Your task to perform on an android device: View the shopping cart on costco. Add "rayovac triple a" to the cart on costco Image 0: 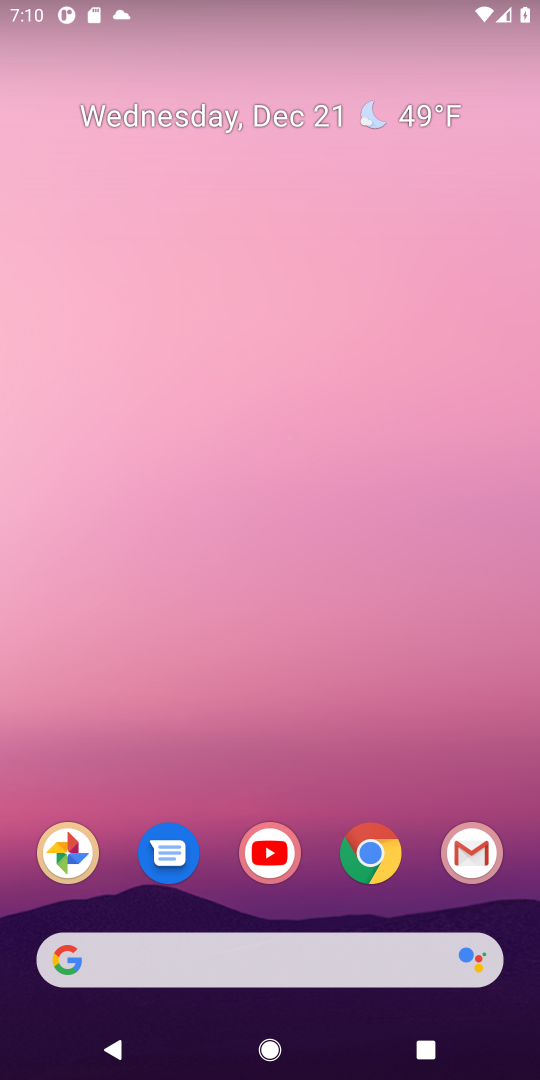
Step 0: click (369, 864)
Your task to perform on an android device: View the shopping cart on costco. Add "rayovac triple a" to the cart on costco Image 1: 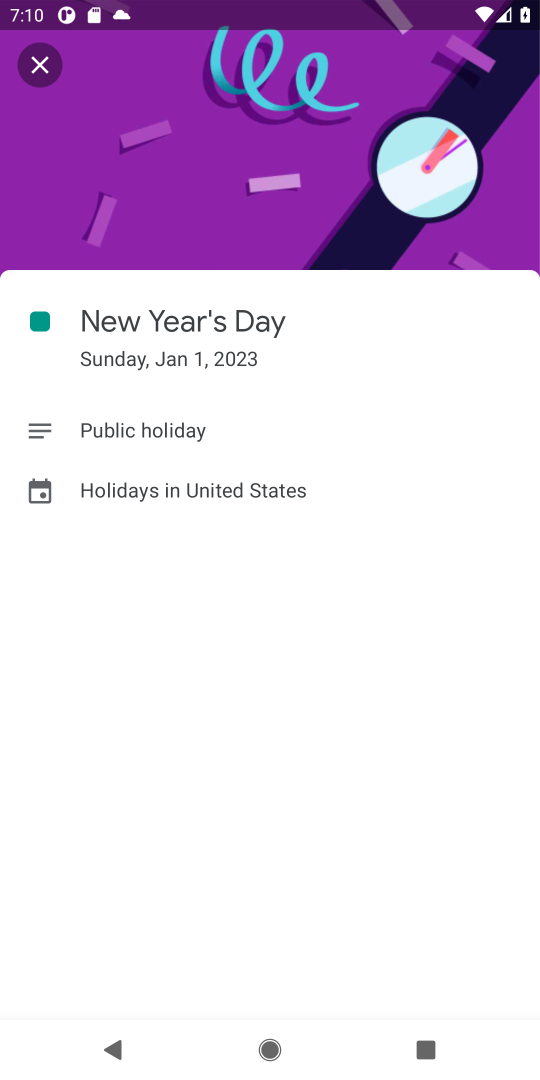
Step 1: press home button
Your task to perform on an android device: View the shopping cart on costco. Add "rayovac triple a" to the cart on costco Image 2: 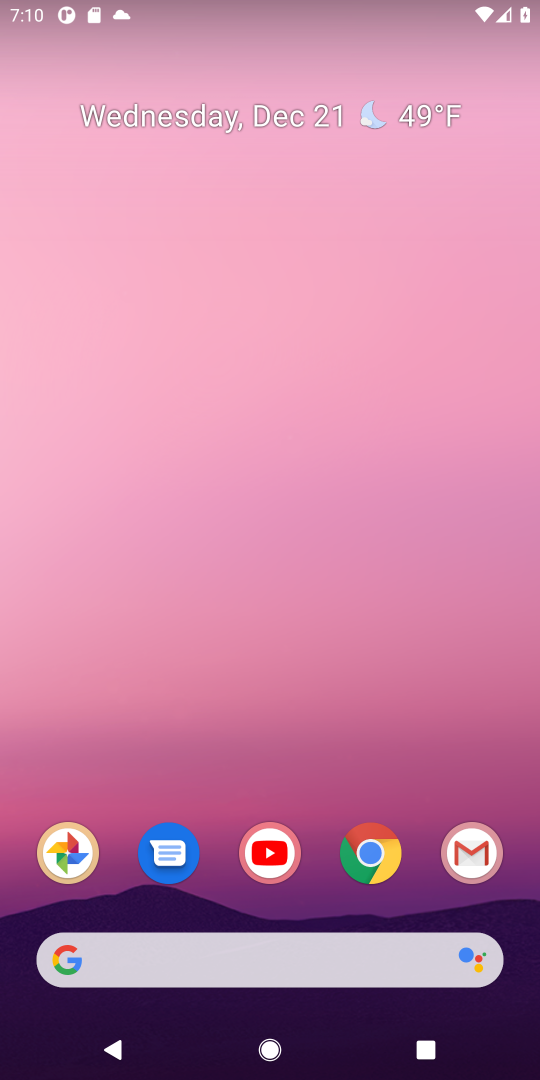
Step 2: click (378, 837)
Your task to perform on an android device: View the shopping cart on costco. Add "rayovac triple a" to the cart on costco Image 3: 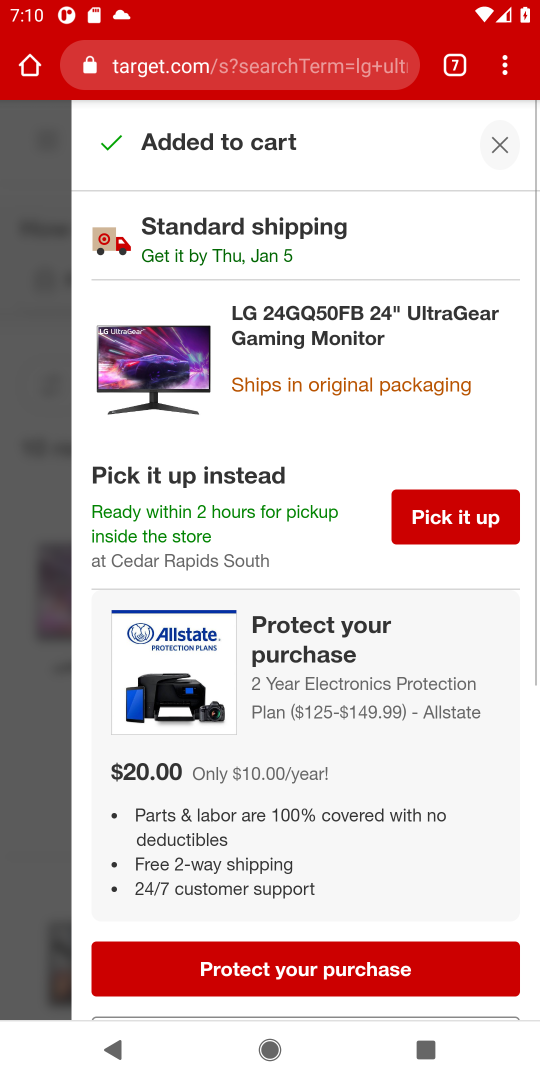
Step 3: click (460, 65)
Your task to perform on an android device: View the shopping cart on costco. Add "rayovac triple a" to the cart on costco Image 4: 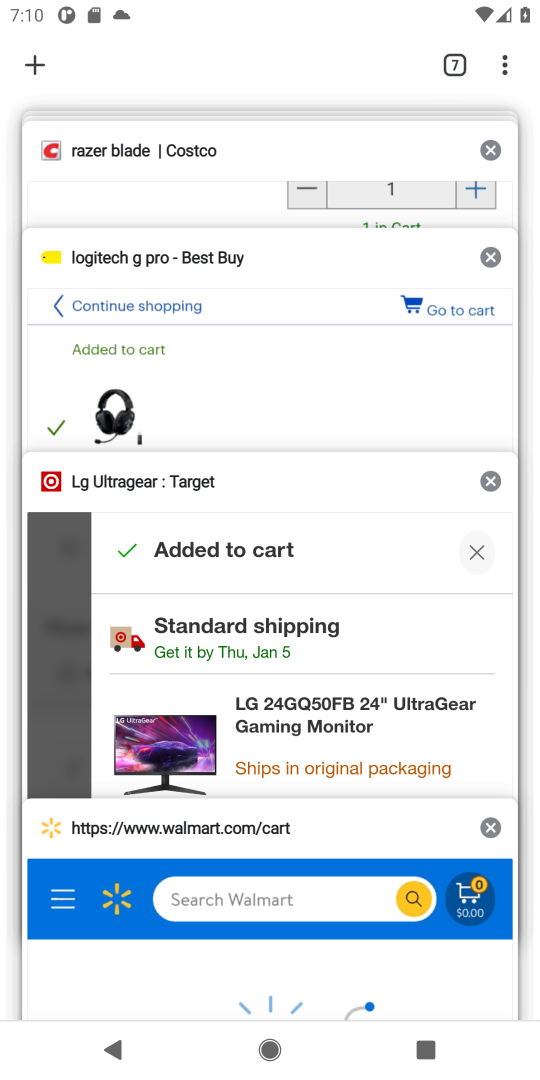
Step 4: click (253, 199)
Your task to perform on an android device: View the shopping cart on costco. Add "rayovac triple a" to the cart on costco Image 5: 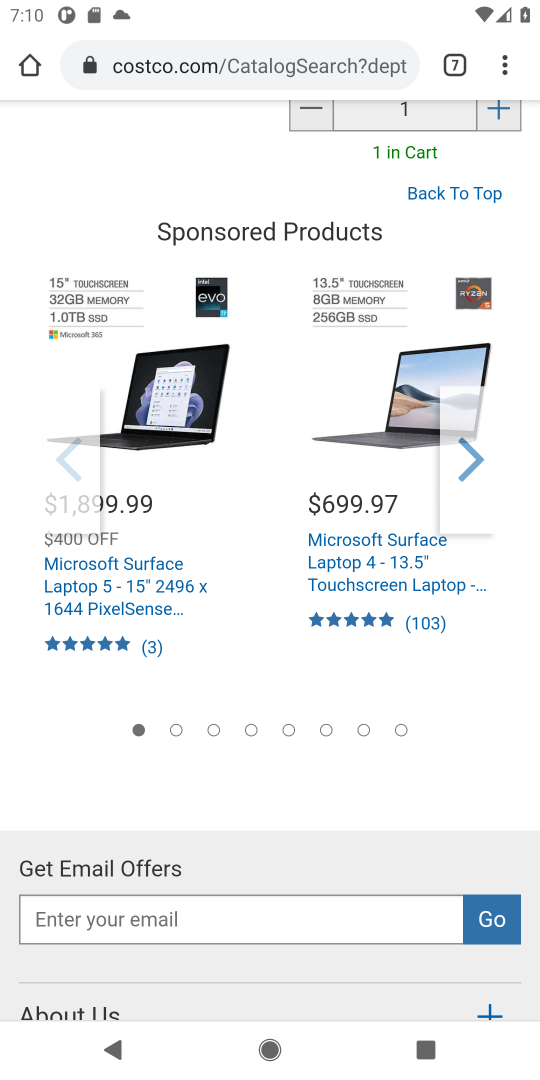
Step 5: drag from (216, 161) to (90, 574)
Your task to perform on an android device: View the shopping cart on costco. Add "rayovac triple a" to the cart on costco Image 6: 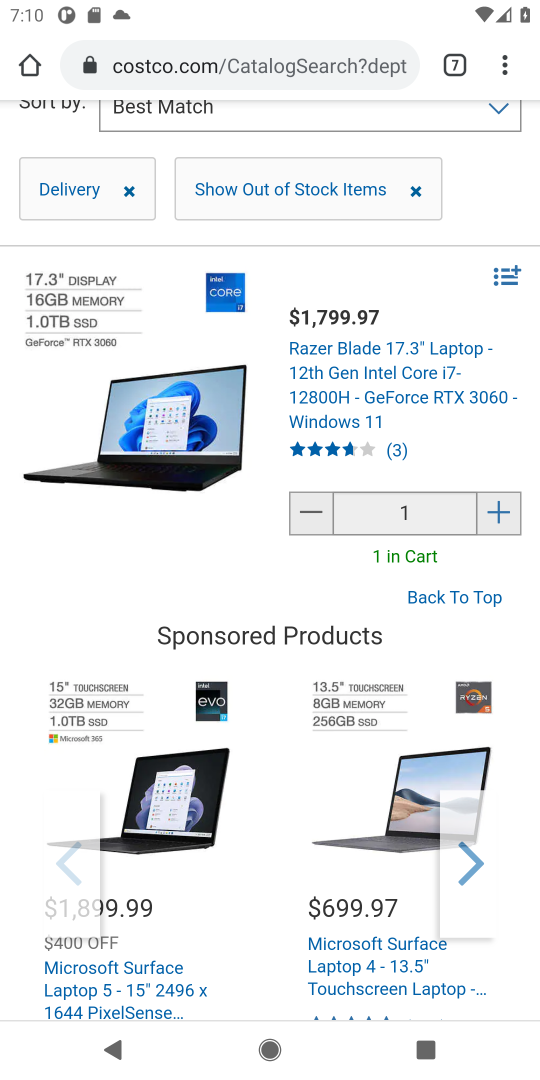
Step 6: drag from (162, 159) to (96, 770)
Your task to perform on an android device: View the shopping cart on costco. Add "rayovac triple a" to the cart on costco Image 7: 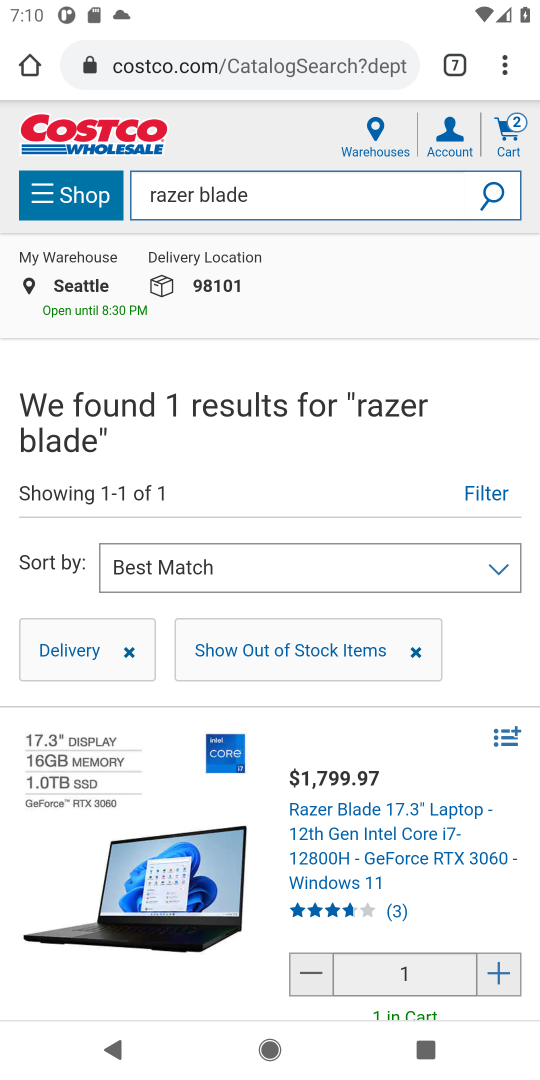
Step 7: click (341, 201)
Your task to perform on an android device: View the shopping cart on costco. Add "rayovac triple a" to the cart on costco Image 8: 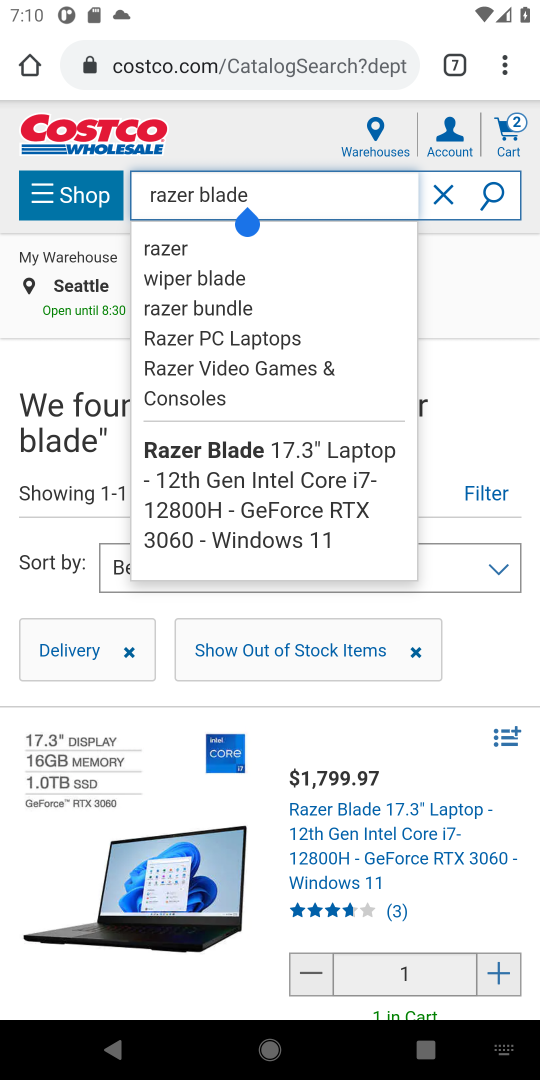
Step 8: click (440, 198)
Your task to perform on an android device: View the shopping cart on costco. Add "rayovac triple a" to the cart on costco Image 9: 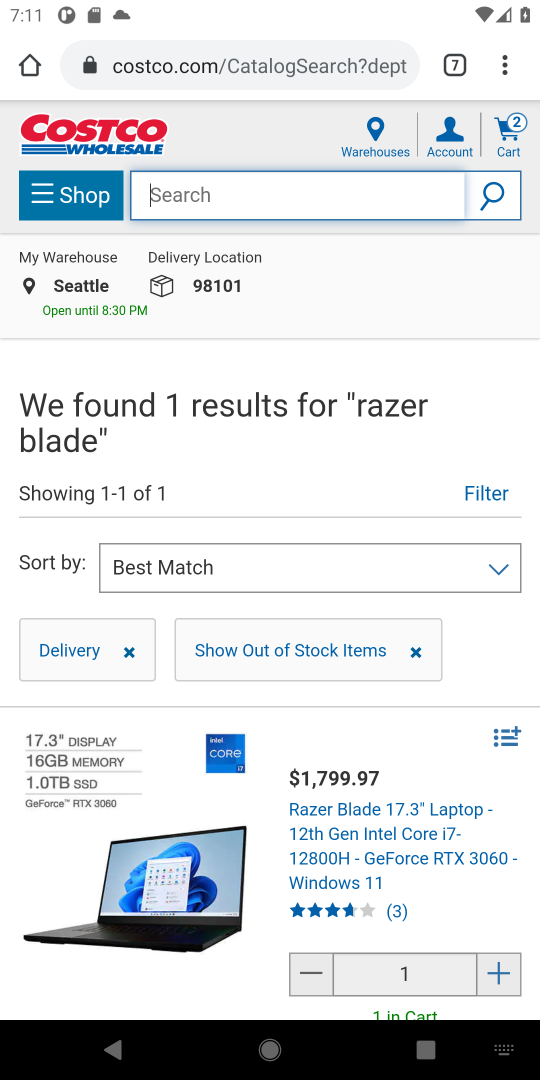
Step 9: click (520, 128)
Your task to perform on an android device: View the shopping cart on costco. Add "rayovac triple a" to the cart on costco Image 10: 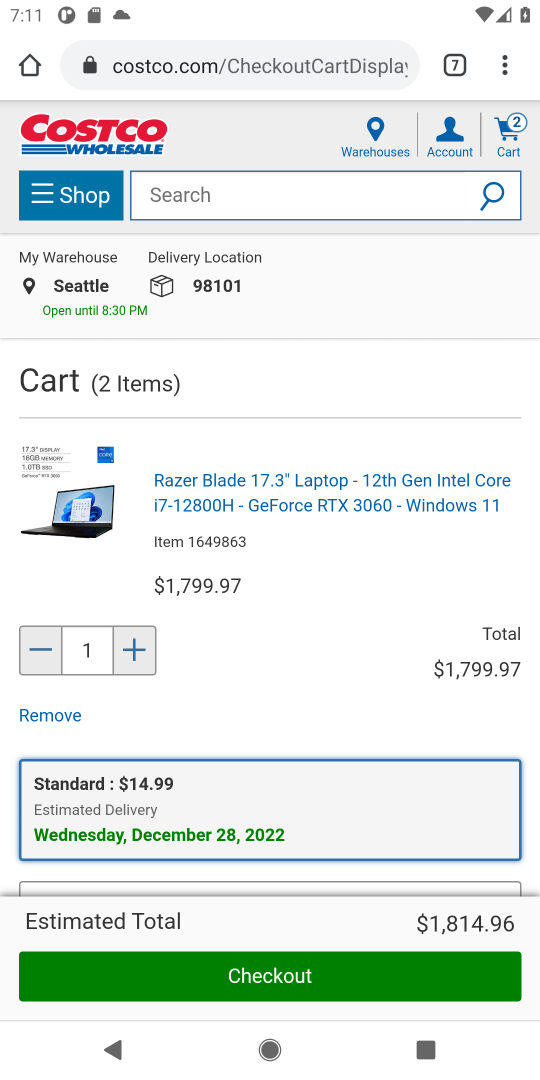
Step 10: click (242, 196)
Your task to perform on an android device: View the shopping cart on costco. Add "rayovac triple a" to the cart on costco Image 11: 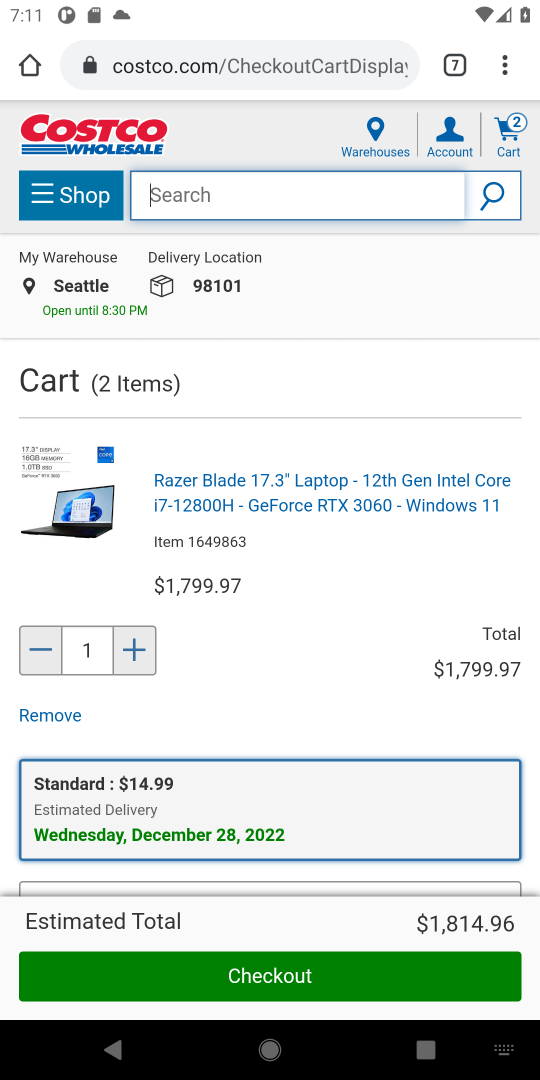
Step 11: type "rayovac triple a battery"
Your task to perform on an android device: View the shopping cart on costco. Add "rayovac triple a" to the cart on costco Image 12: 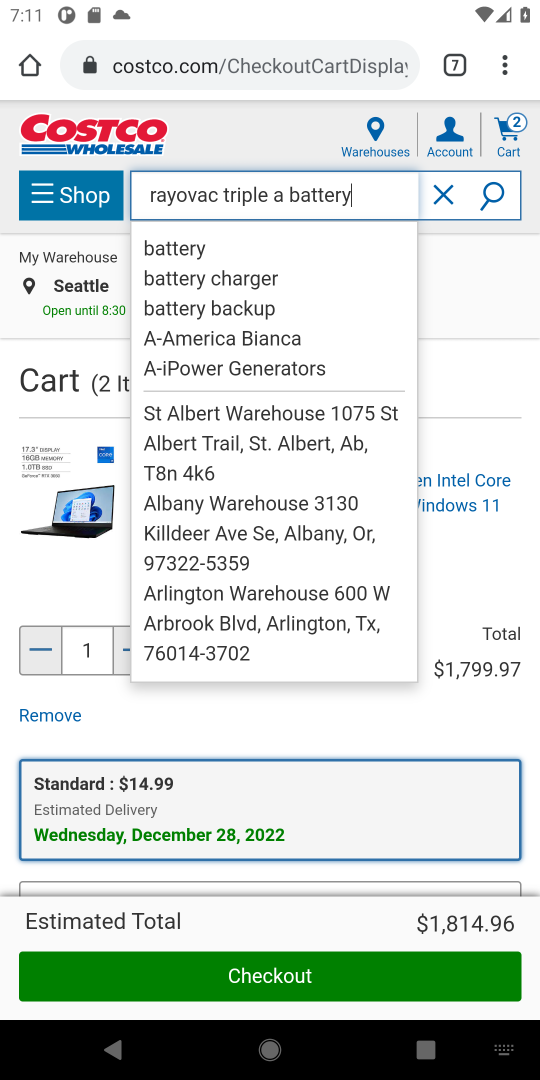
Step 12: click (492, 184)
Your task to perform on an android device: View the shopping cart on costco. Add "rayovac triple a" to the cart on costco Image 13: 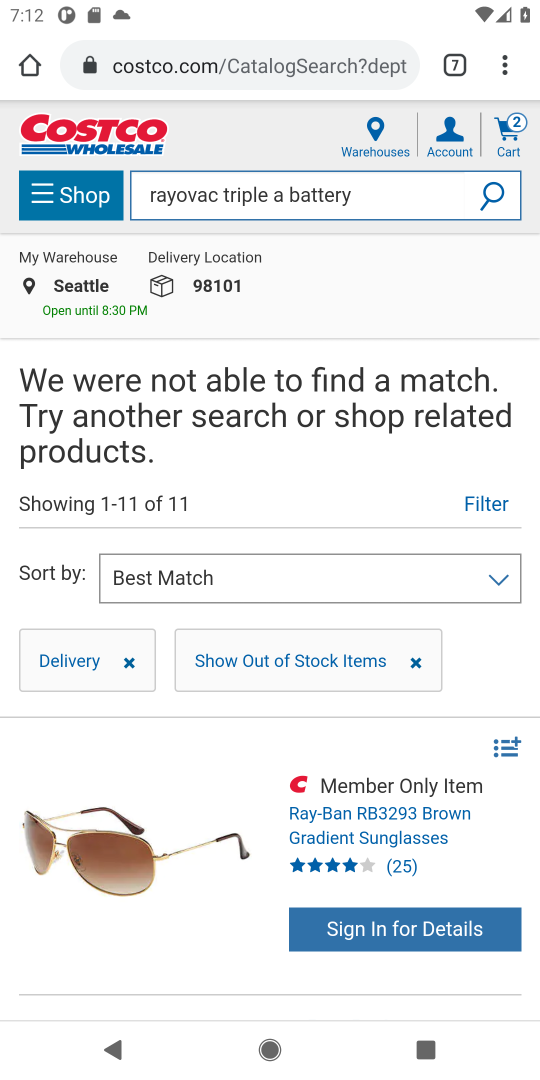
Step 13: task complete